Your task to perform on an android device: Search for the best rated mattress topper on Target. Image 0: 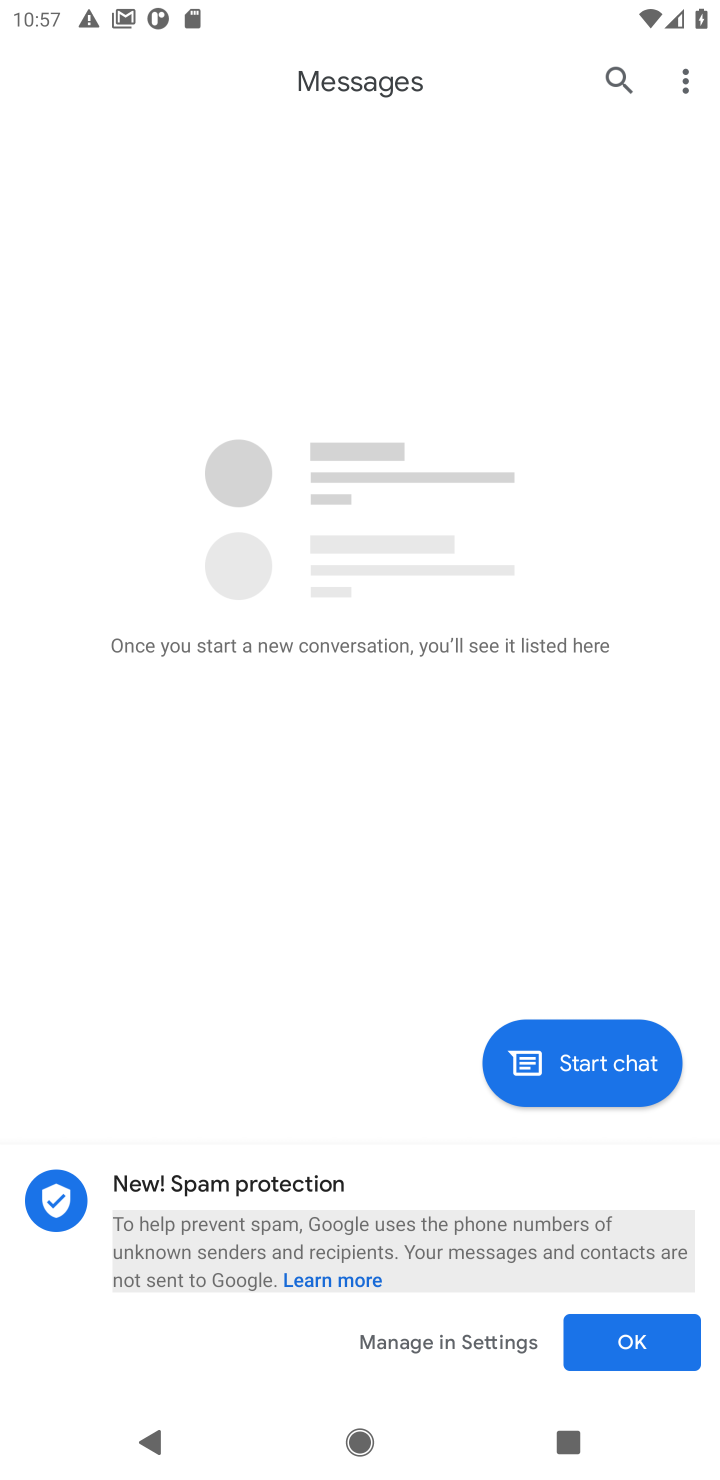
Step 0: press home button
Your task to perform on an android device: Search for the best rated mattress topper on Target. Image 1: 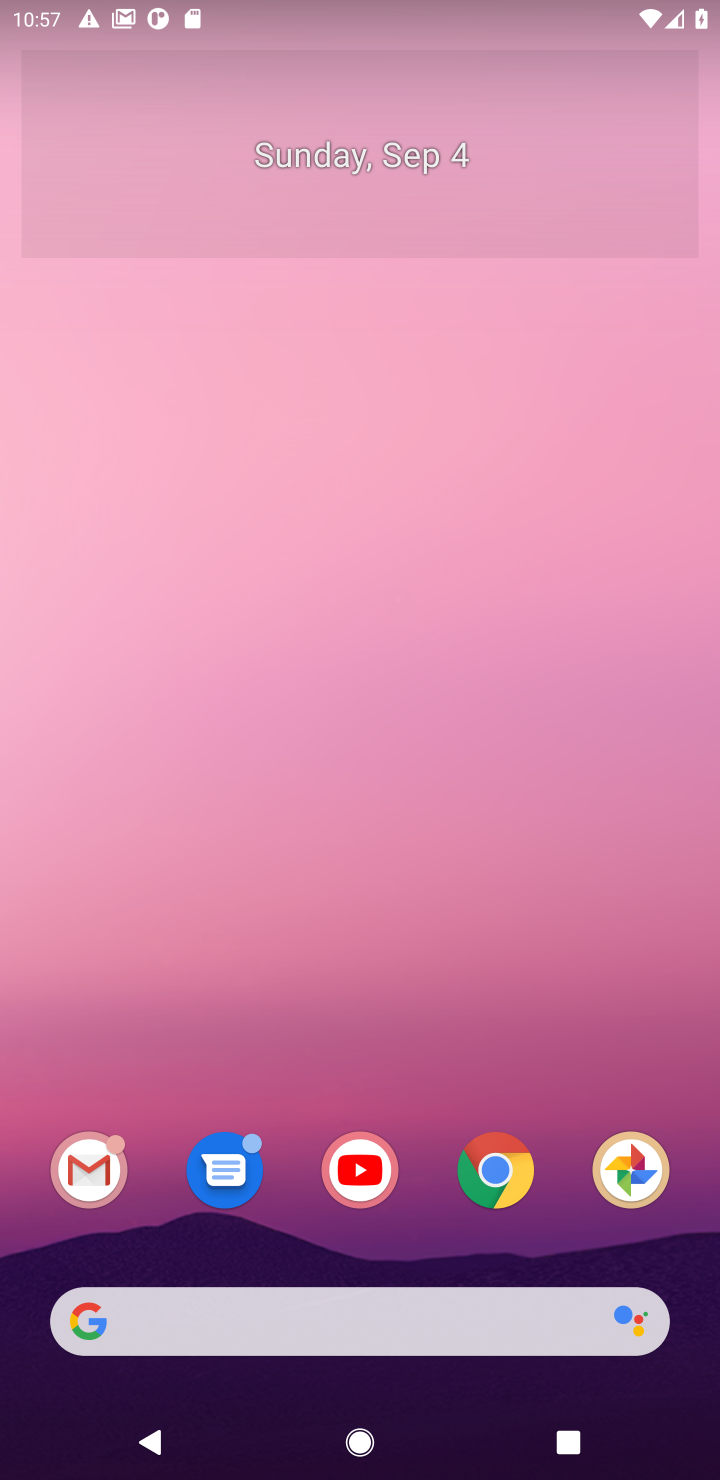
Step 1: drag from (298, 1243) to (247, 219)
Your task to perform on an android device: Search for the best rated mattress topper on Target. Image 2: 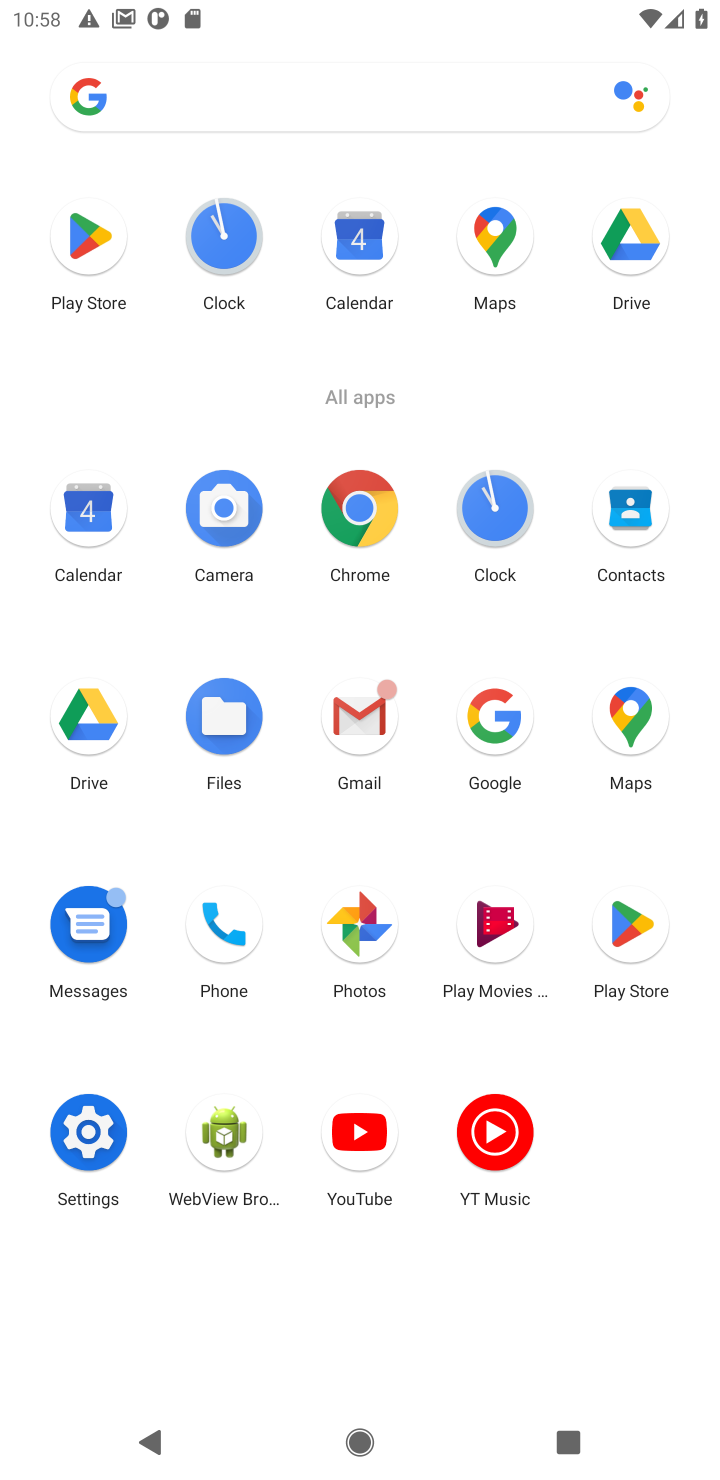
Step 2: click (508, 706)
Your task to perform on an android device: Search for the best rated mattress topper on Target. Image 3: 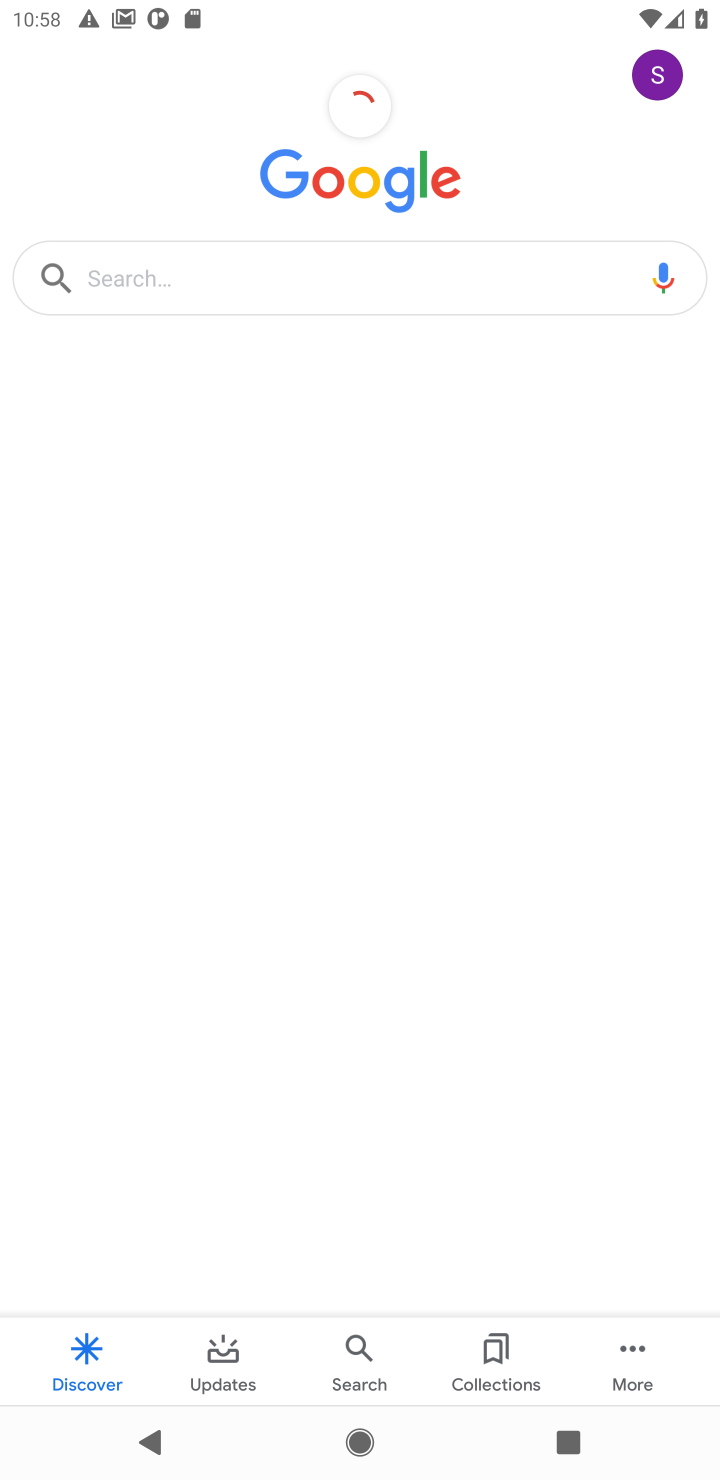
Step 3: click (245, 250)
Your task to perform on an android device: Search for the best rated mattress topper on Target. Image 4: 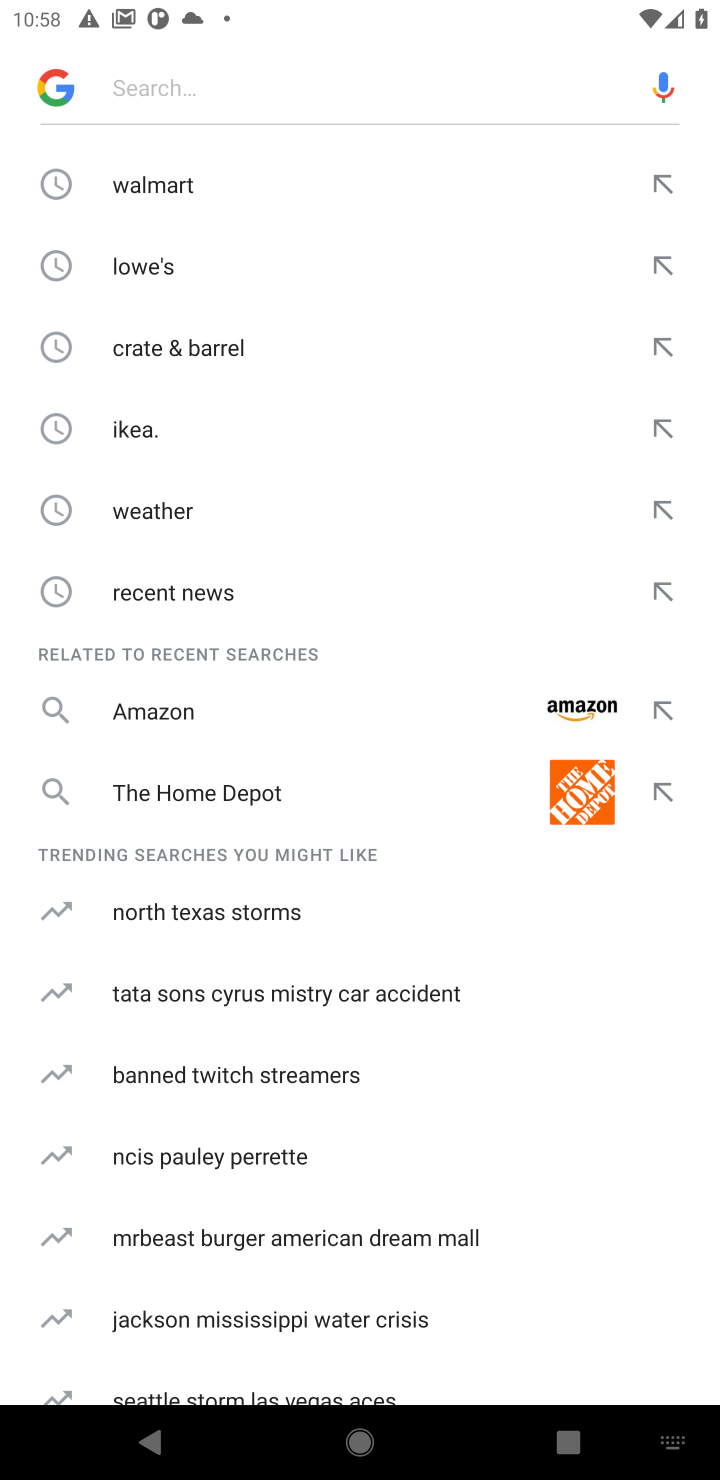
Step 4: type "Target"
Your task to perform on an android device: Search for the best rated mattress topper on Target. Image 5: 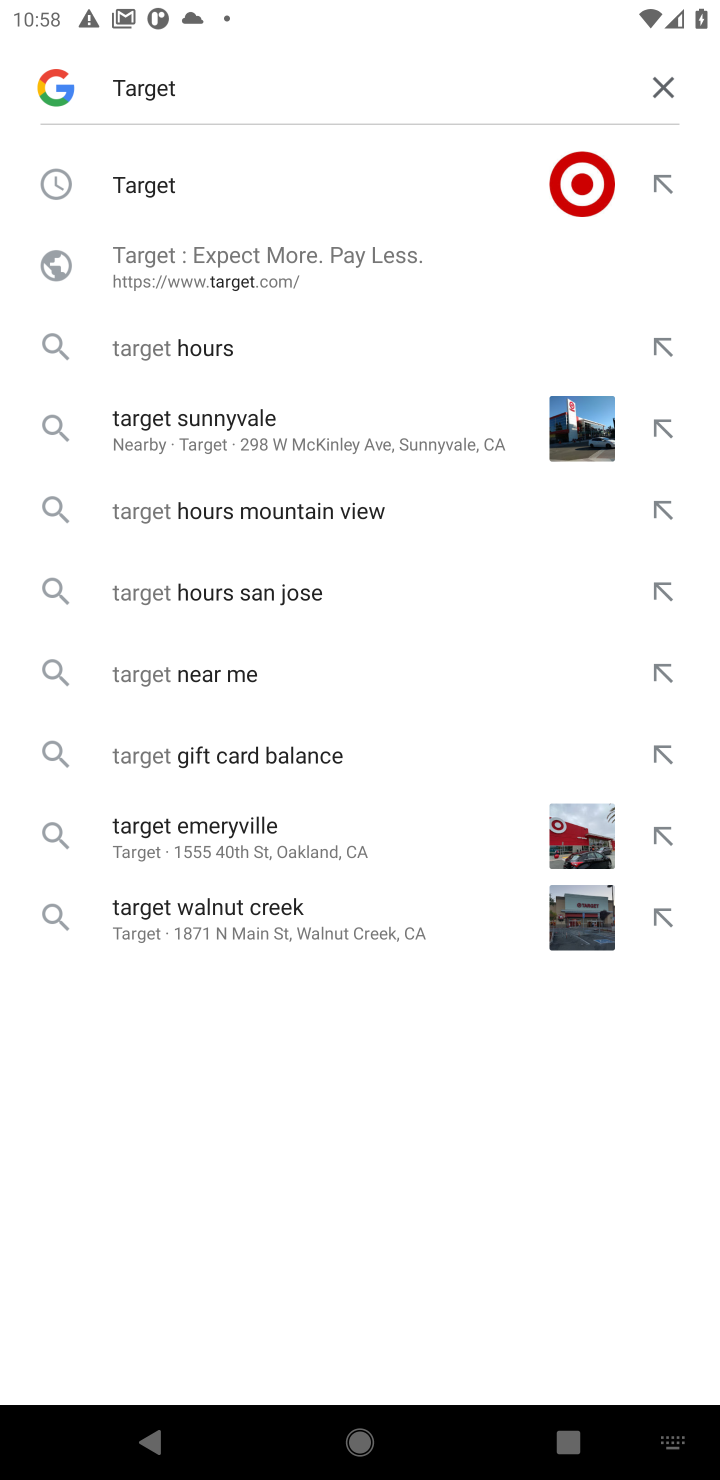
Step 5: type ""
Your task to perform on an android device: Search for the best rated mattress topper on Target. Image 6: 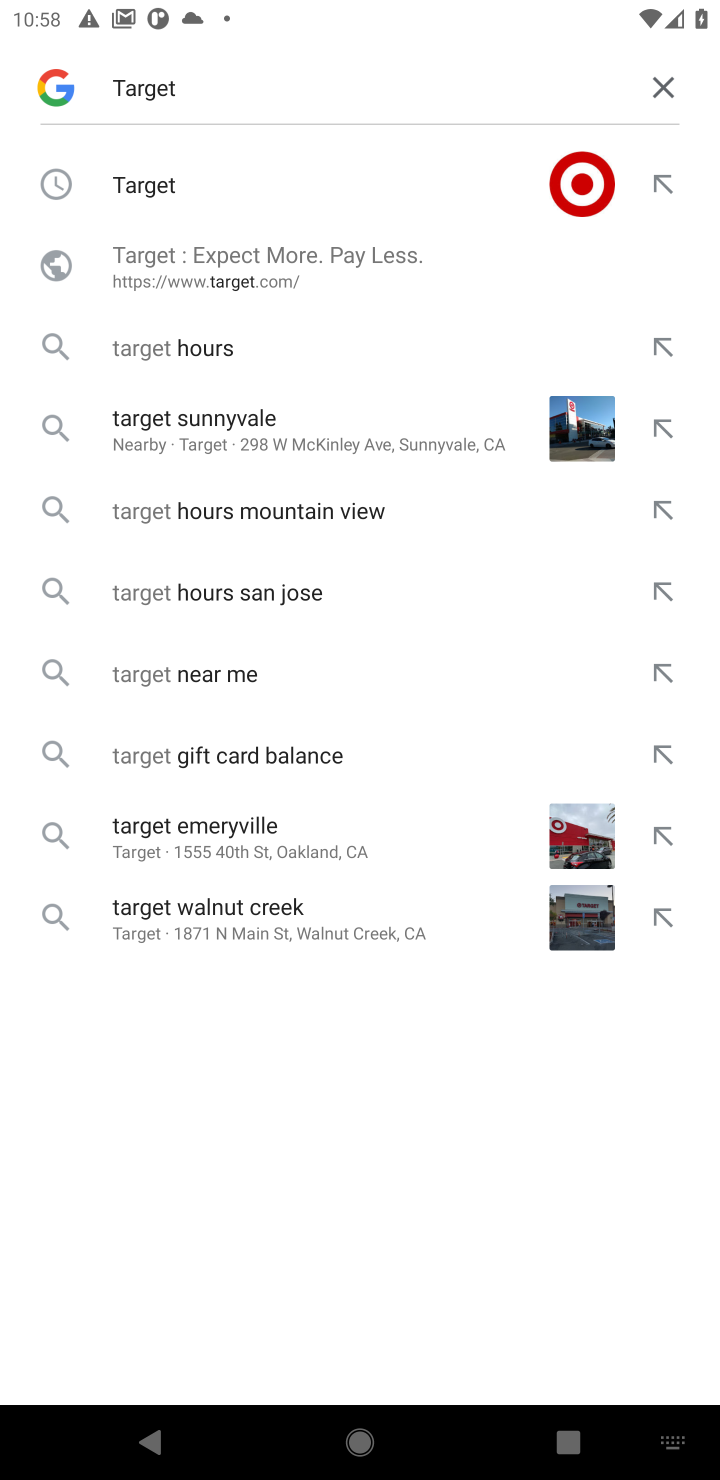
Step 6: click (119, 173)
Your task to perform on an android device: Search for the best rated mattress topper on Target. Image 7: 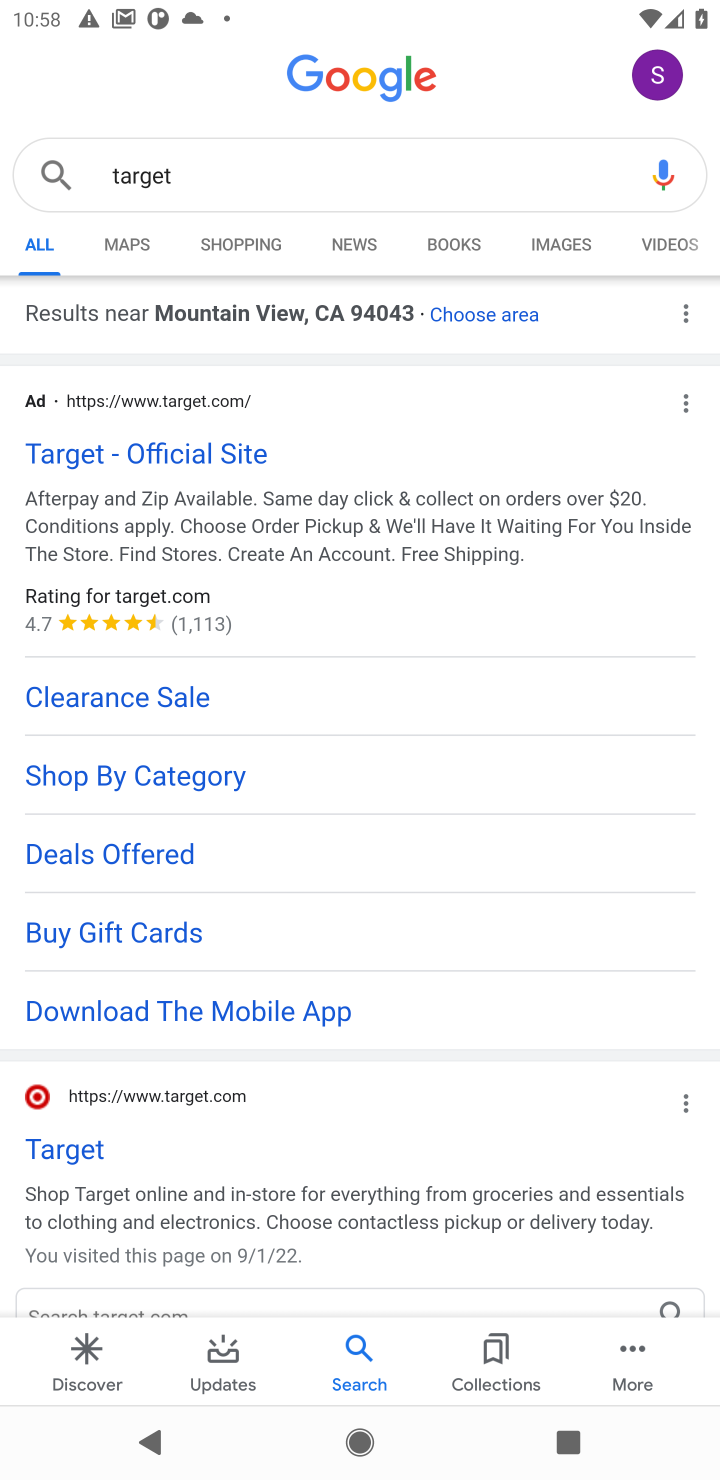
Step 7: click (188, 435)
Your task to perform on an android device: Search for the best rated mattress topper on Target. Image 8: 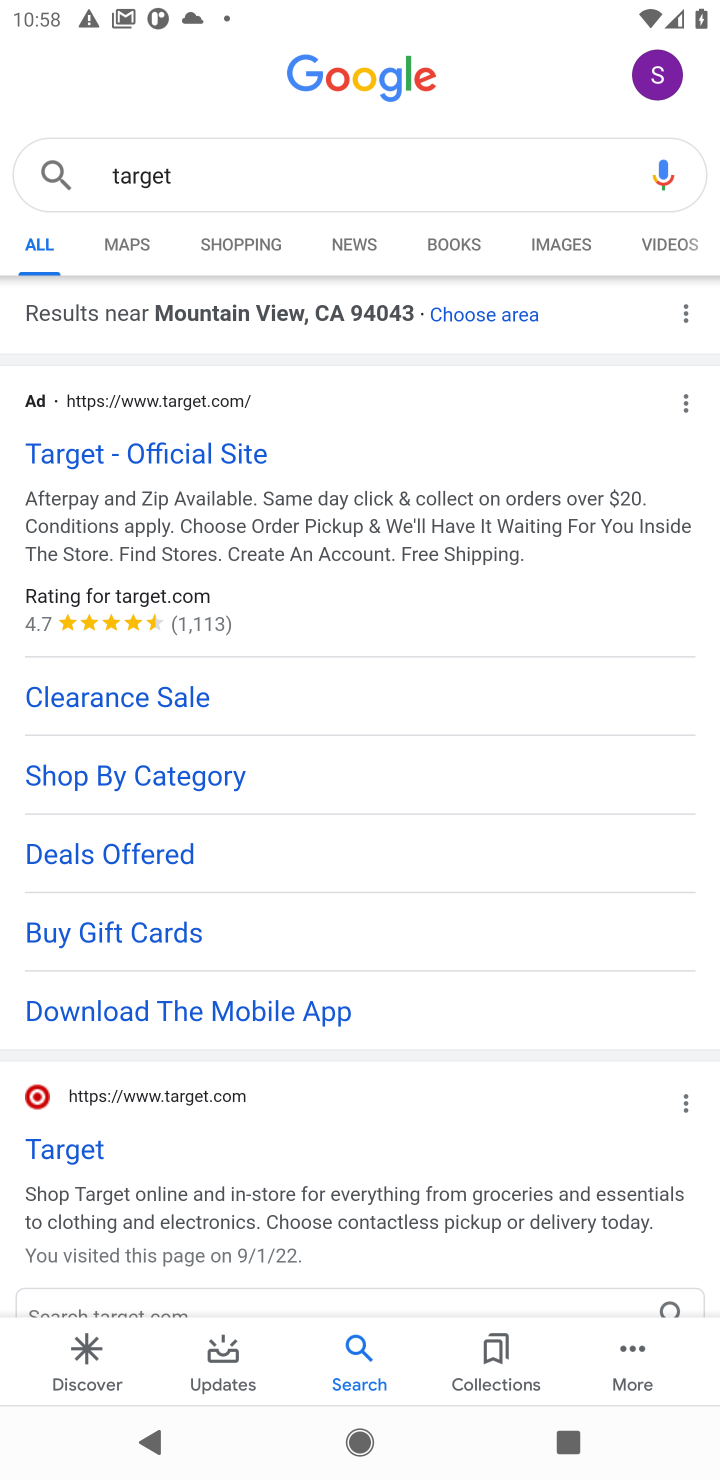
Step 8: click (188, 438)
Your task to perform on an android device: Search for the best rated mattress topper on Target. Image 9: 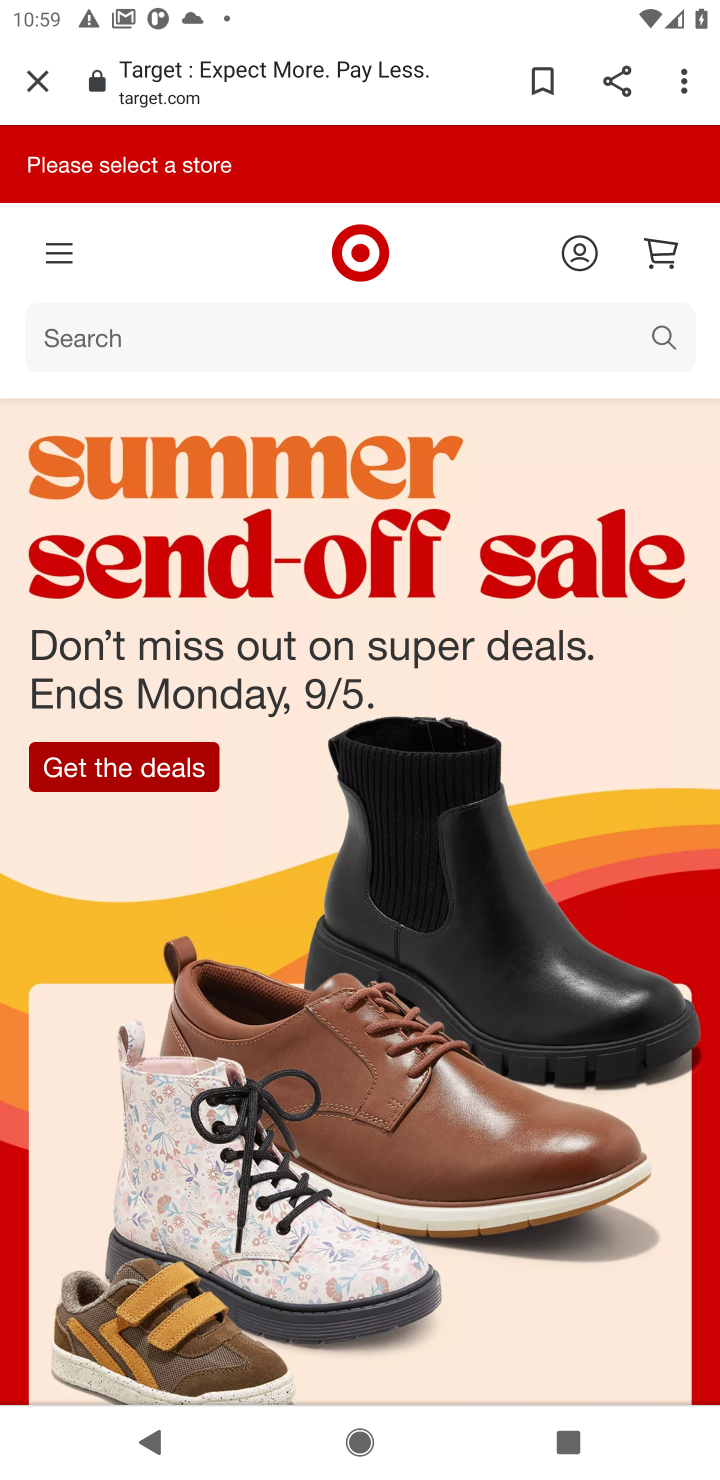
Step 9: click (352, 348)
Your task to perform on an android device: Search for the best rated mattress topper on Target. Image 10: 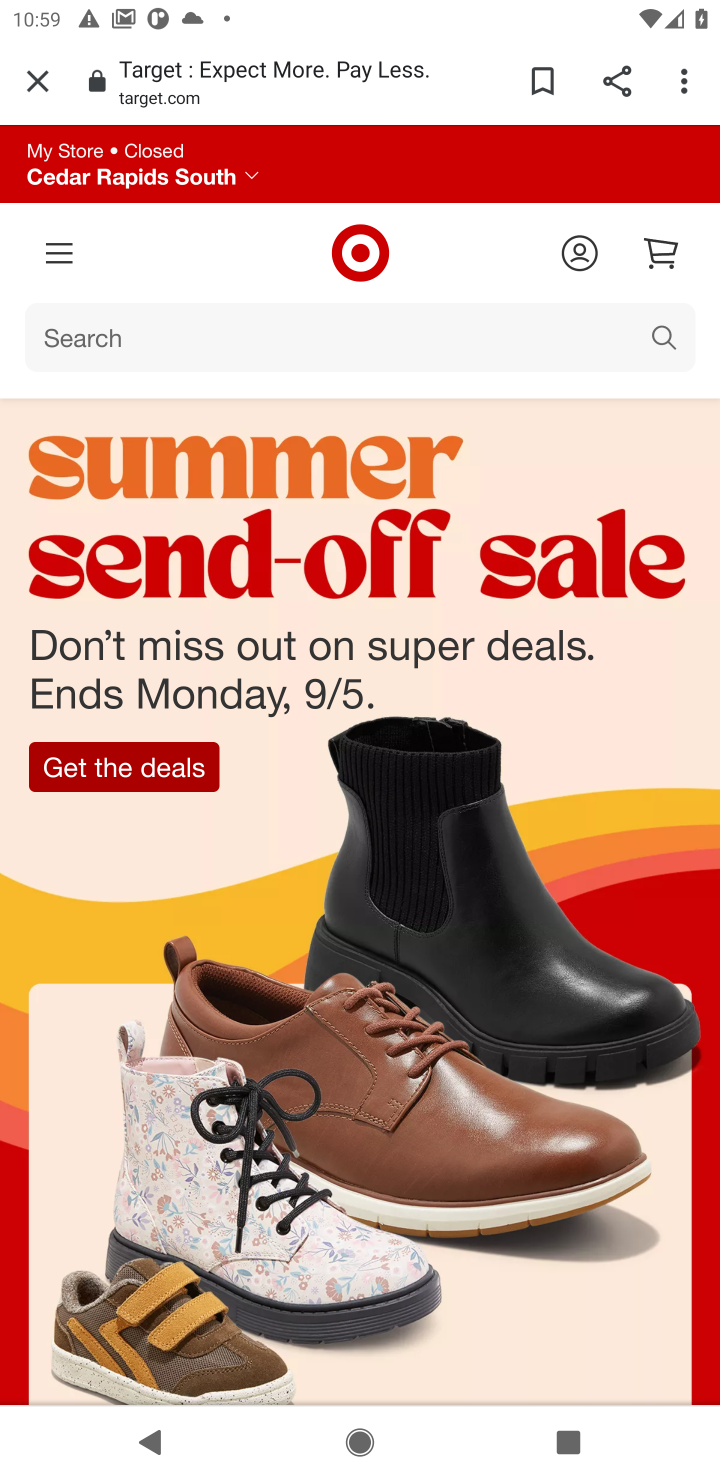
Step 10: click (89, 355)
Your task to perform on an android device: Search for the best rated mattress topper on Target. Image 11: 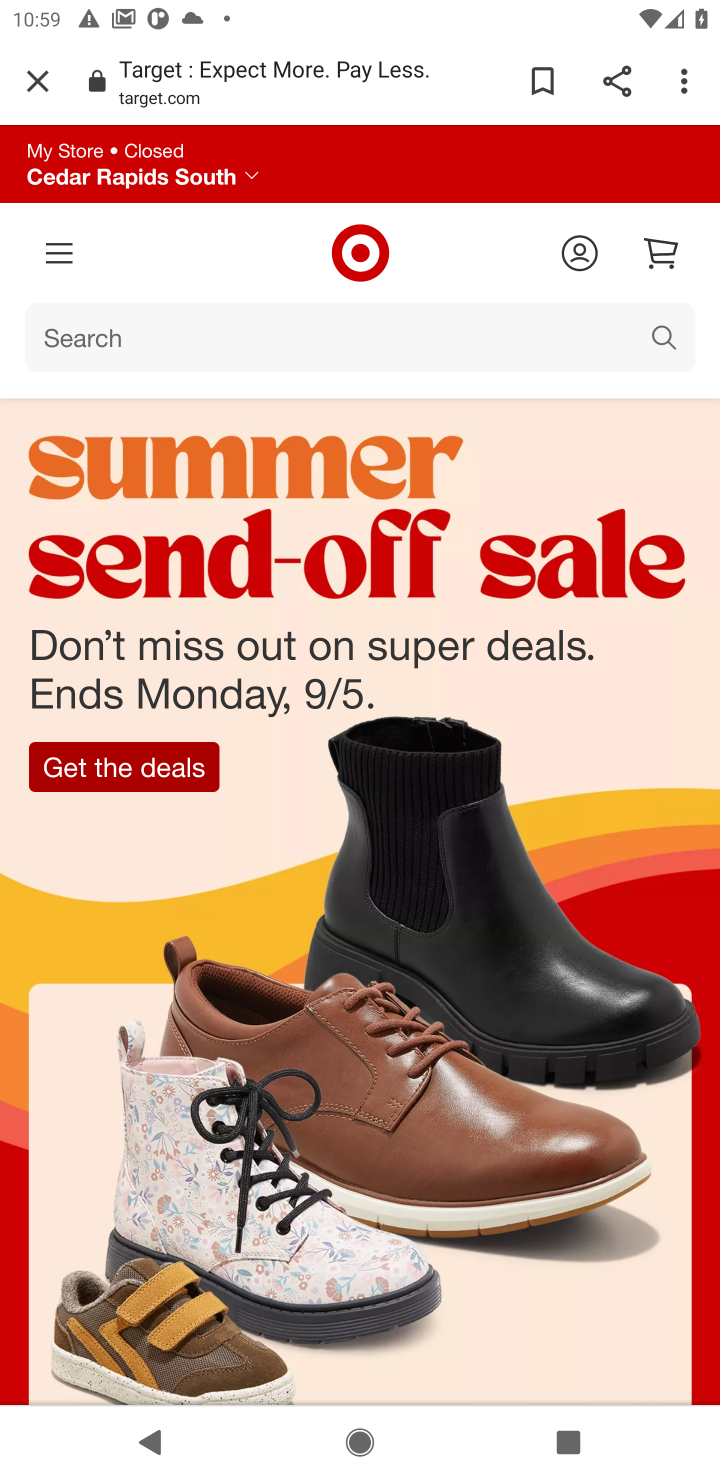
Step 11: click (169, 329)
Your task to perform on an android device: Search for the best rated mattress topper on Target. Image 12: 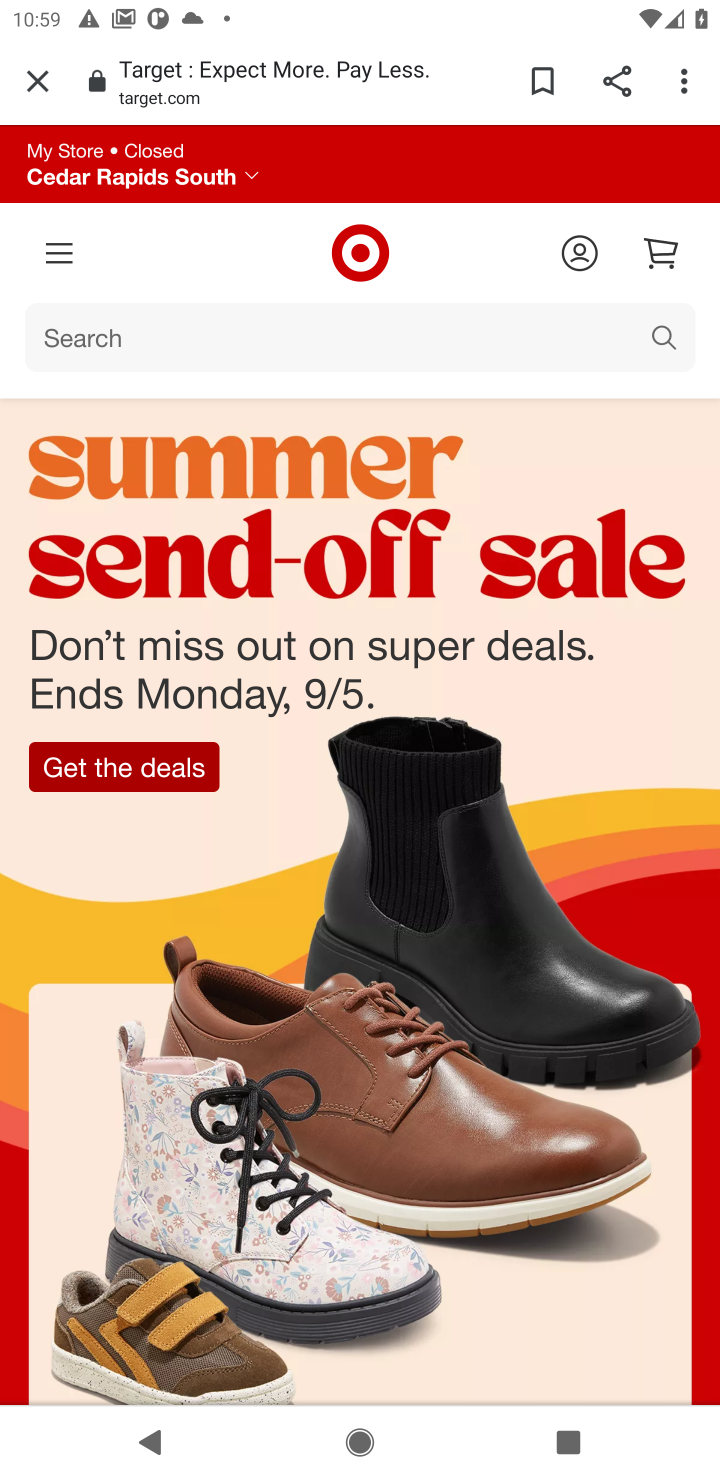
Step 12: click (444, 339)
Your task to perform on an android device: Search for the best rated mattress topper on Target. Image 13: 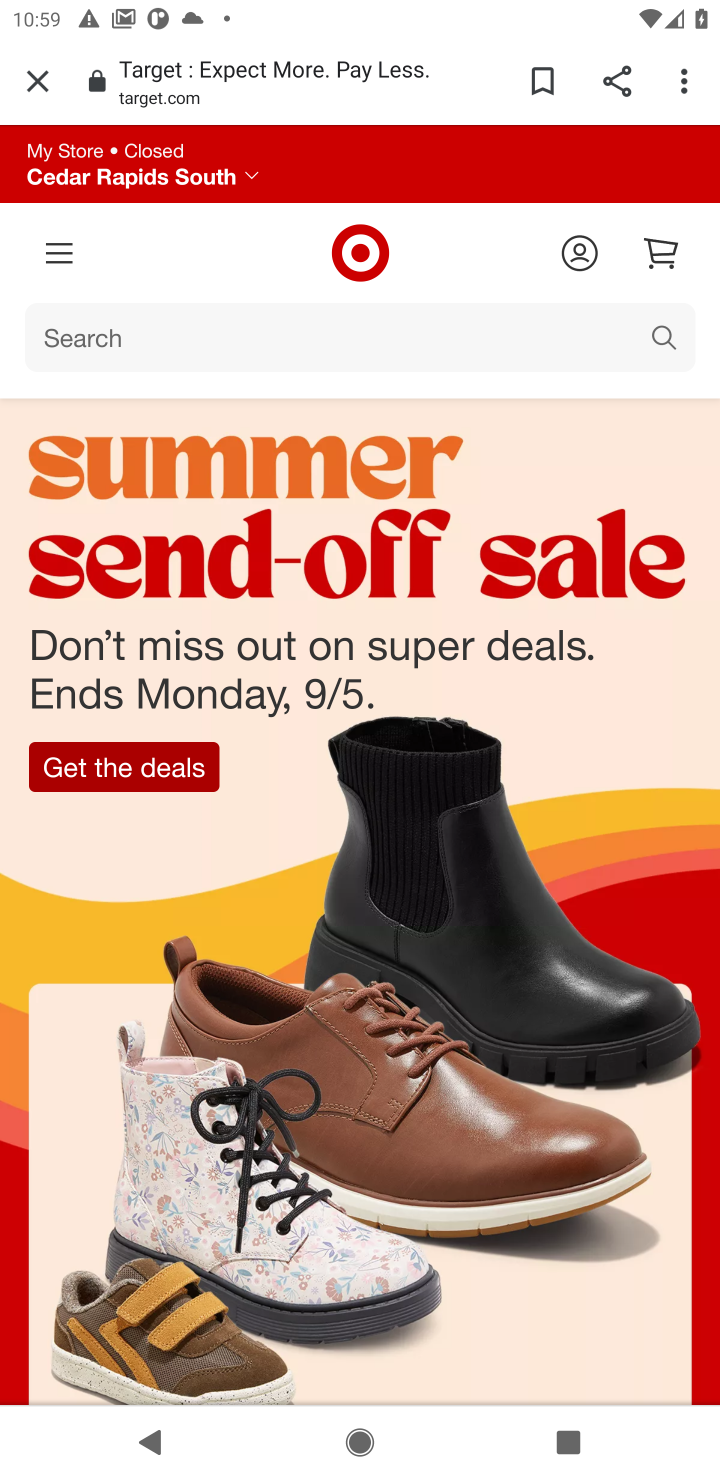
Step 13: click (446, 341)
Your task to perform on an android device: Search for the best rated mattress topper on Target. Image 14: 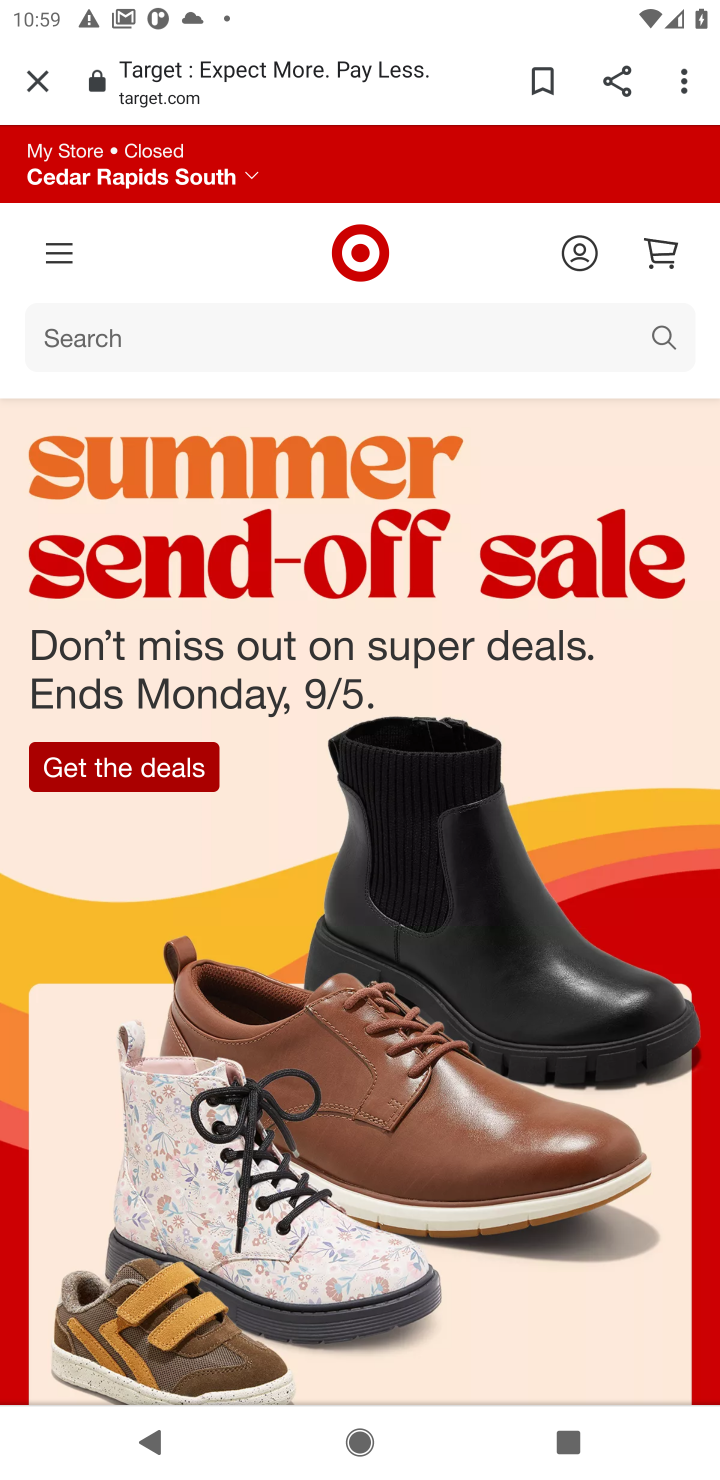
Step 14: click (673, 330)
Your task to perform on an android device: Search for the best rated mattress topper on Target. Image 15: 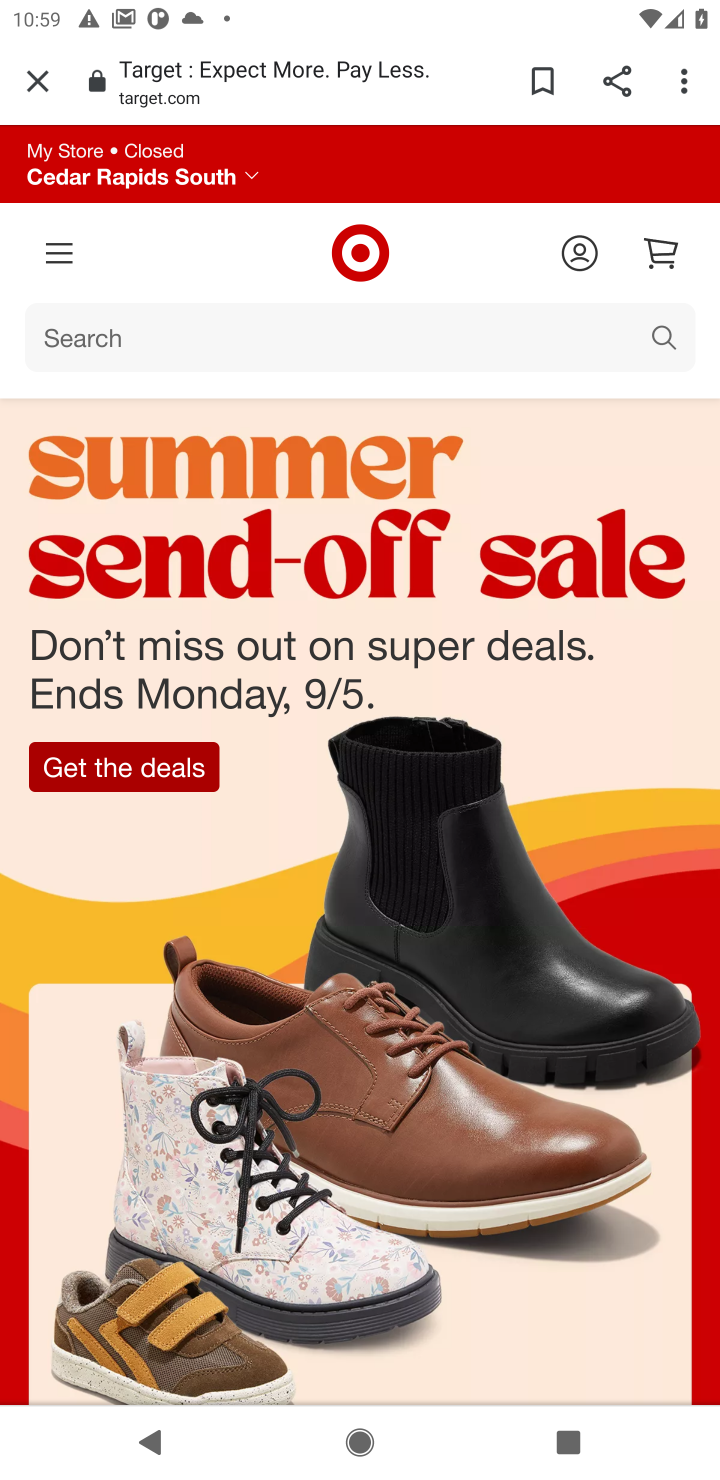
Step 15: drag from (619, 342) to (198, 1031)
Your task to perform on an android device: Search for the best rated mattress topper on Target. Image 16: 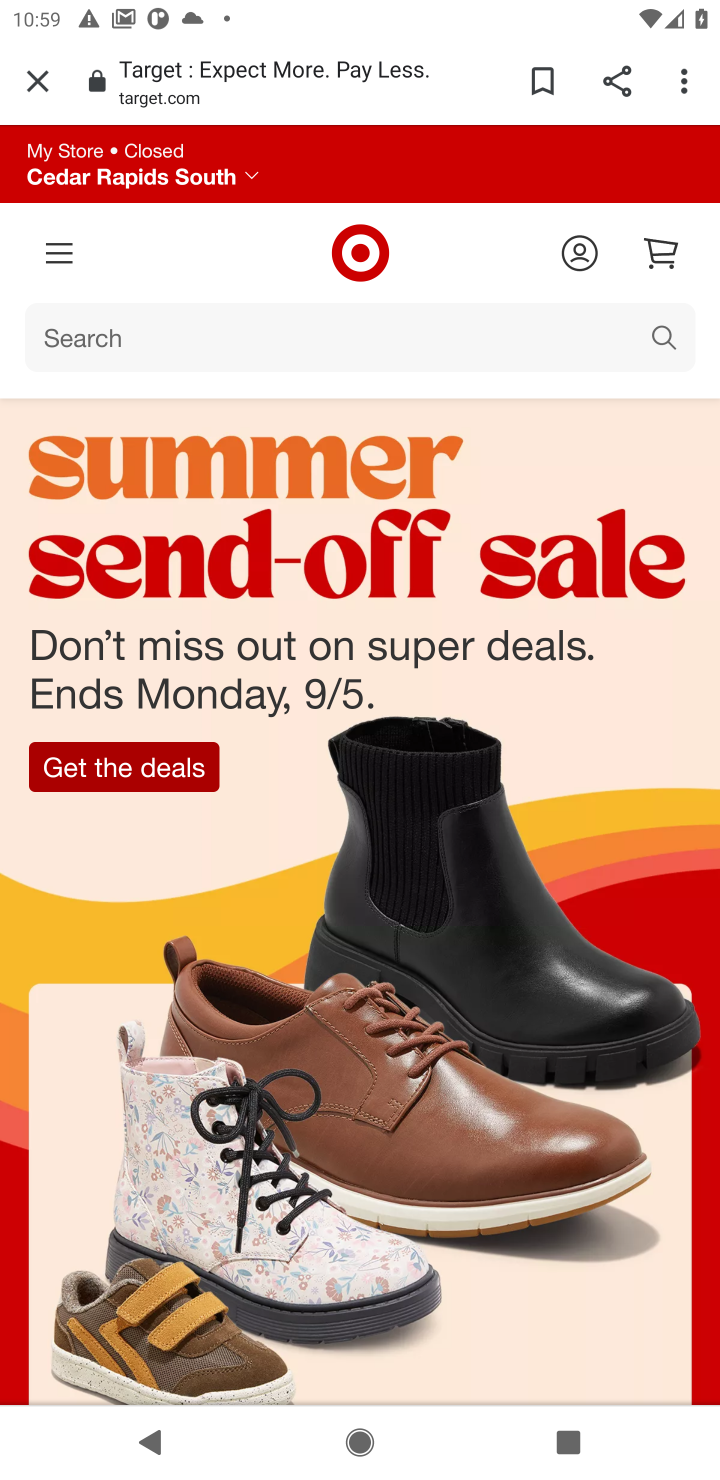
Step 16: click (346, 336)
Your task to perform on an android device: Search for the best rated mattress topper on Target. Image 17: 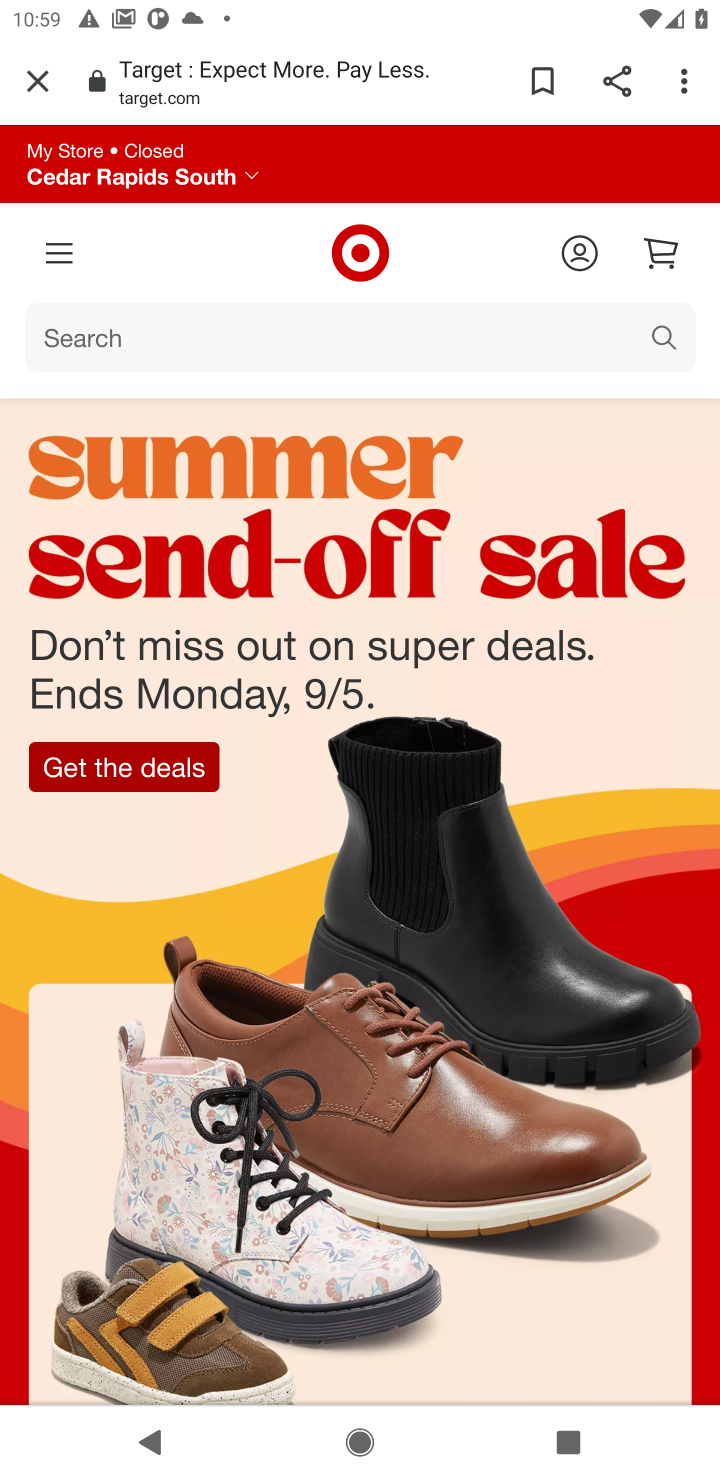
Step 17: click (641, 326)
Your task to perform on an android device: Search for the best rated mattress topper on Target. Image 18: 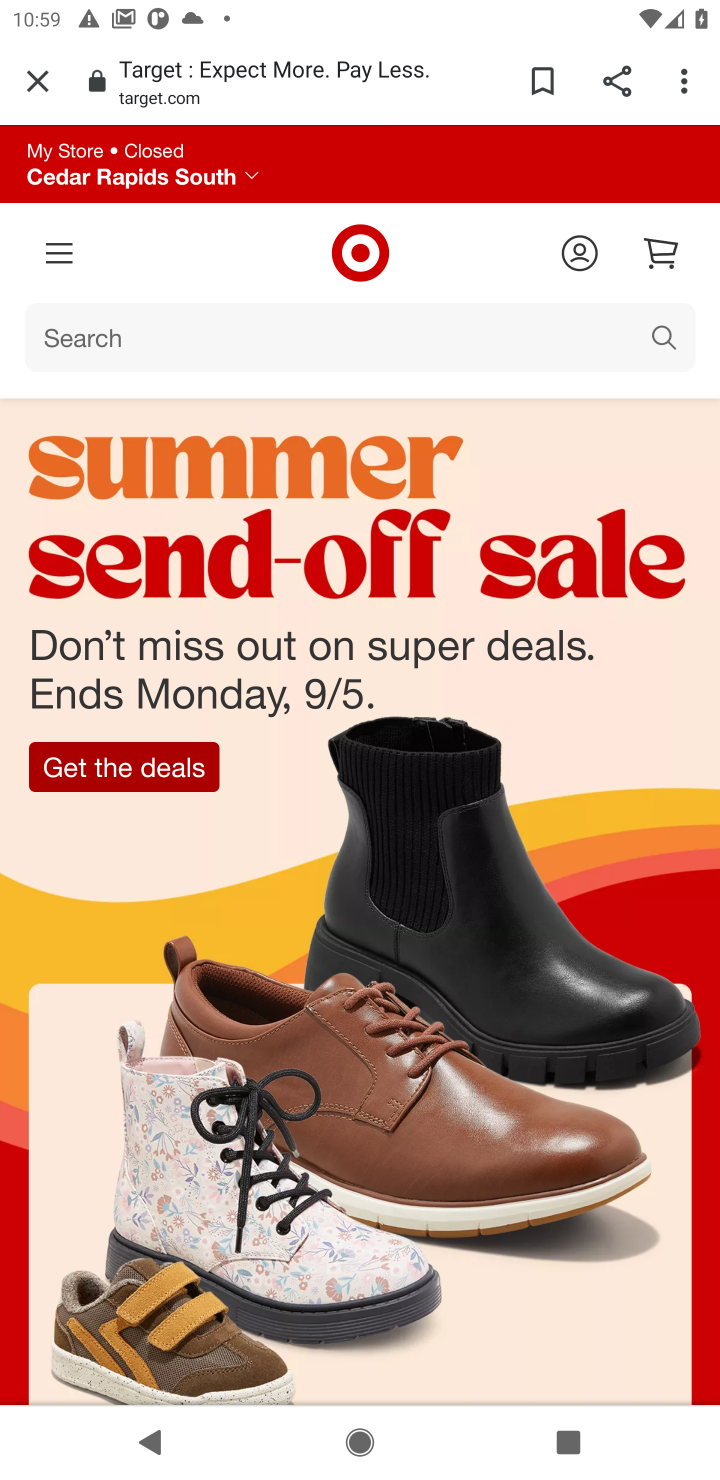
Step 18: drag from (480, 946) to (507, 280)
Your task to perform on an android device: Search for the best rated mattress topper on Target. Image 19: 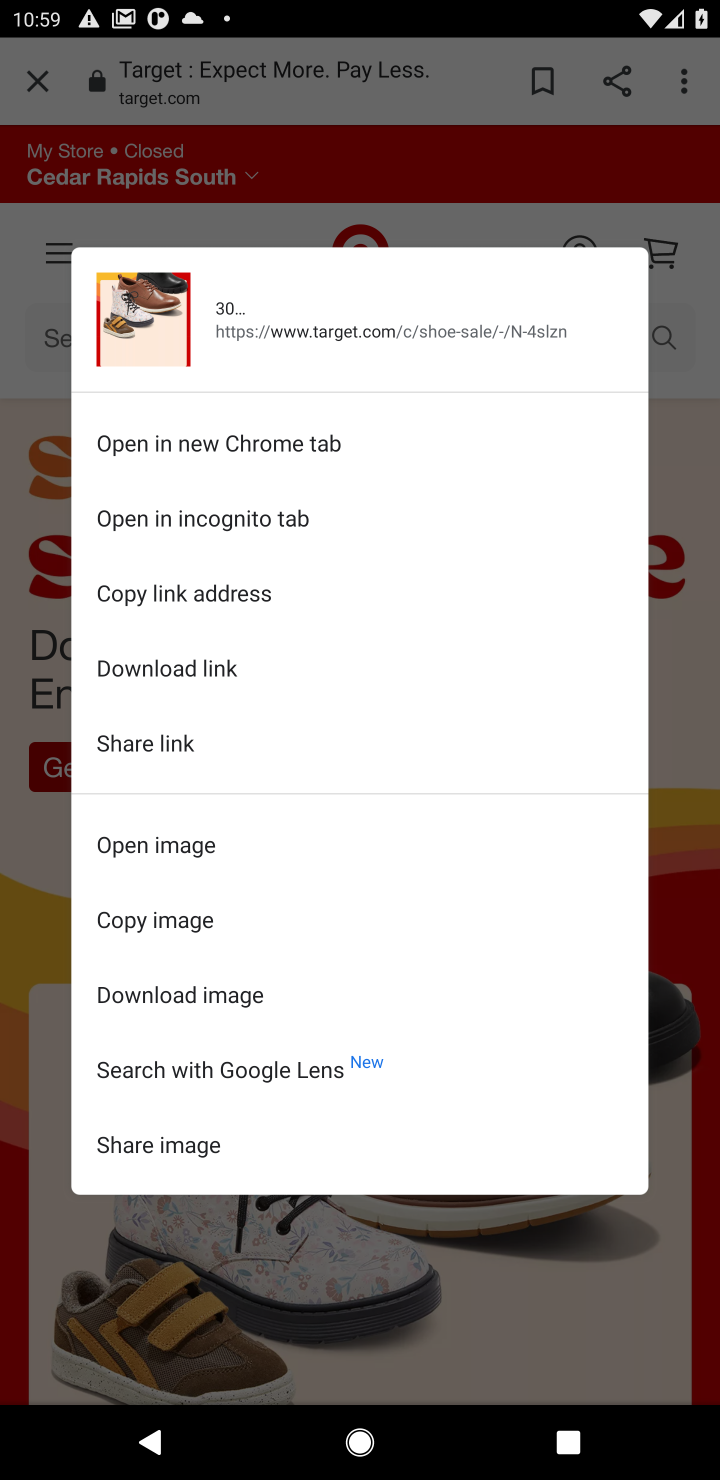
Step 19: click (703, 799)
Your task to perform on an android device: Search for the best rated mattress topper on Target. Image 20: 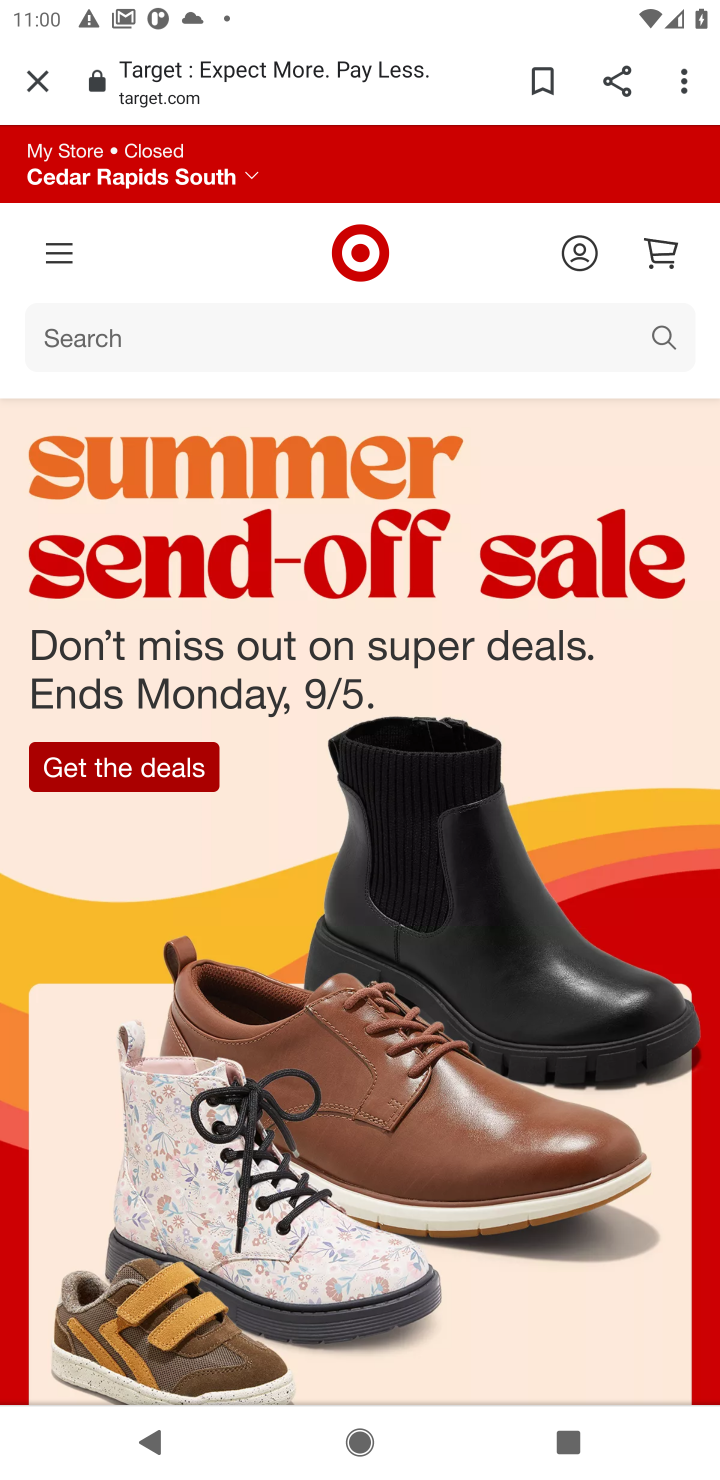
Step 20: click (224, 355)
Your task to perform on an android device: Search for the best rated mattress topper on Target. Image 21: 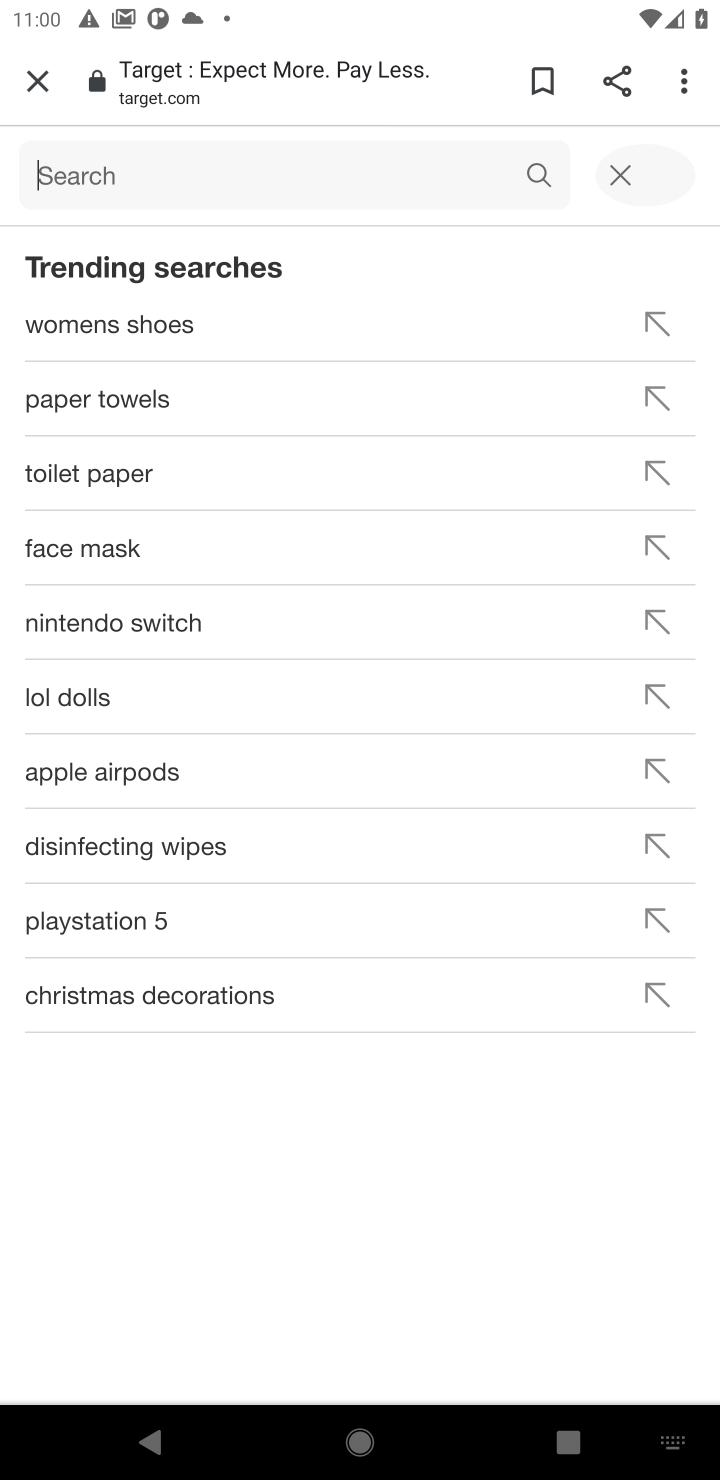
Step 21: click (415, 1476)
Your task to perform on an android device: Search for the best rated mattress topper on Target. Image 22: 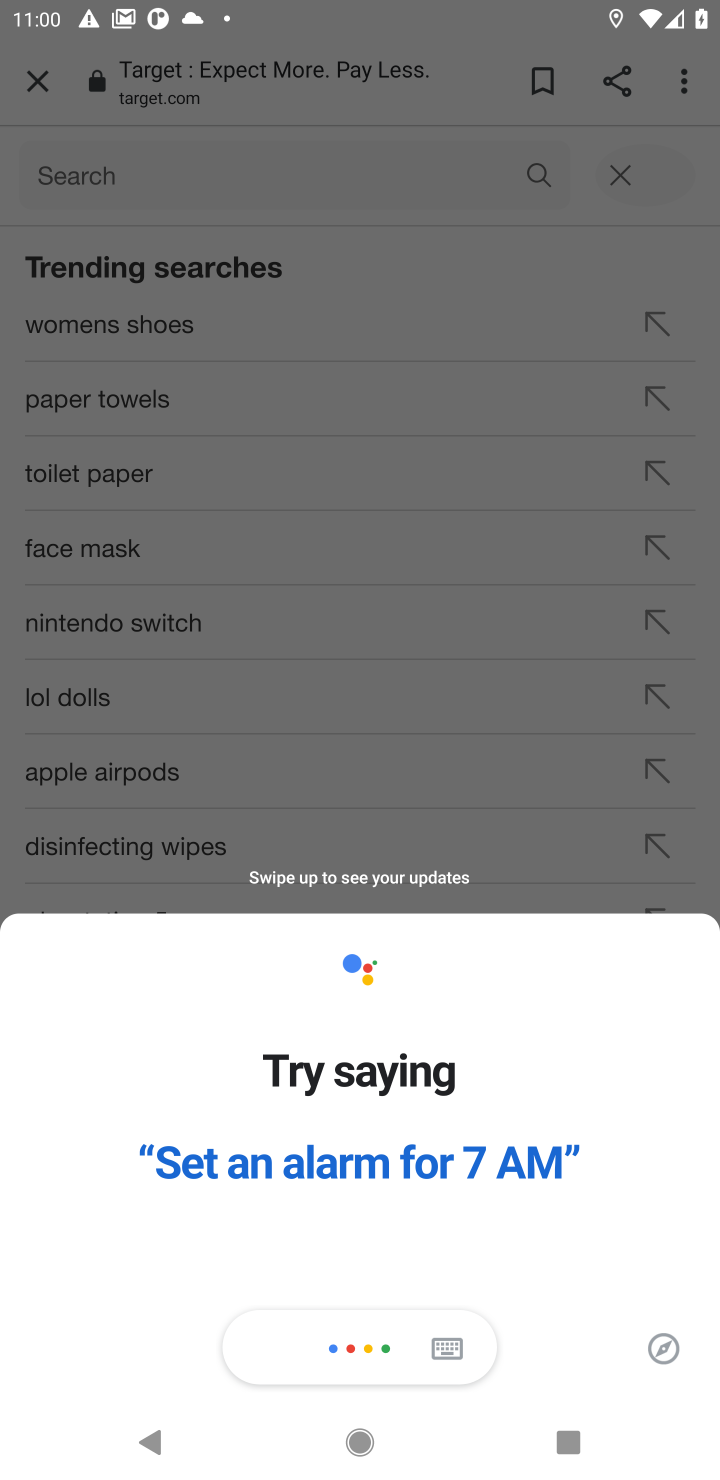
Step 22: click (208, 190)
Your task to perform on an android device: Search for the best rated mattress topper on Target. Image 23: 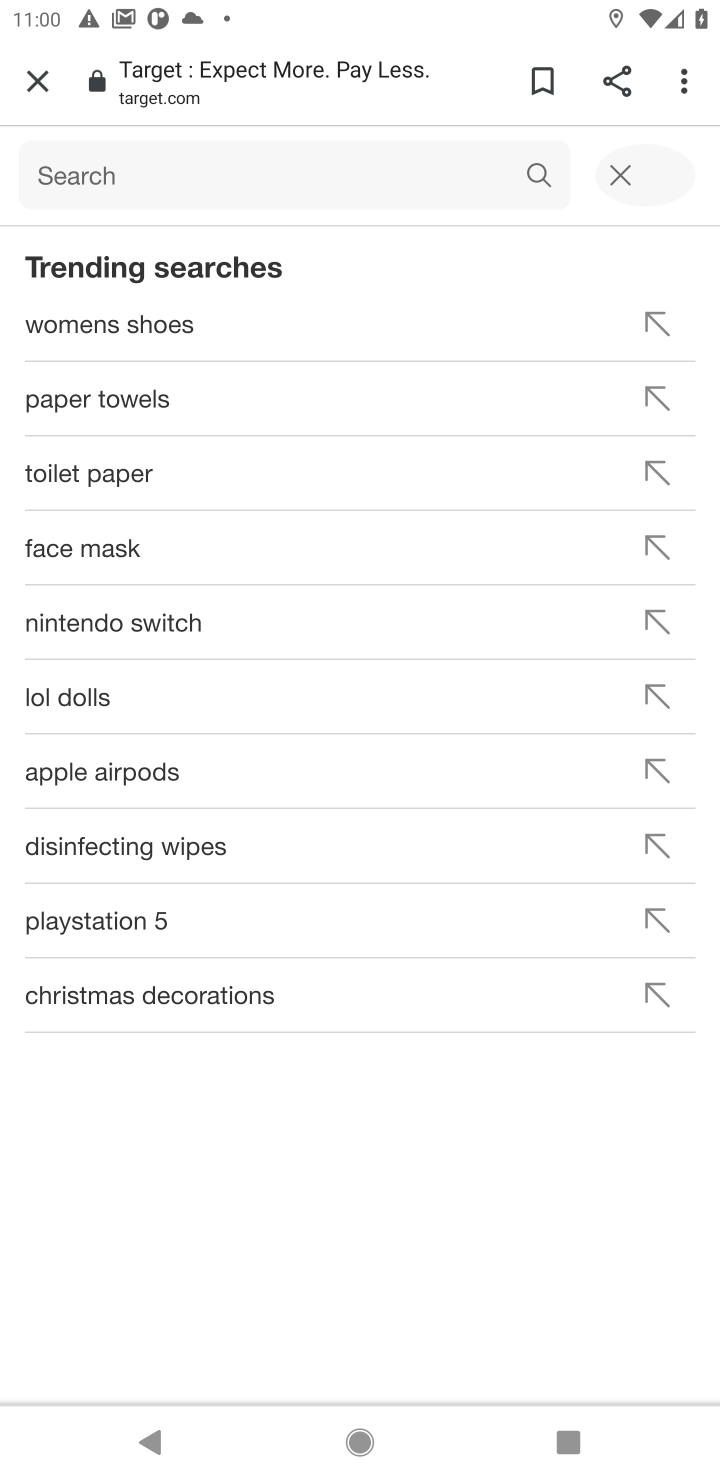
Step 23: click (197, 179)
Your task to perform on an android device: Search for the best rated mattress topper on Target. Image 24: 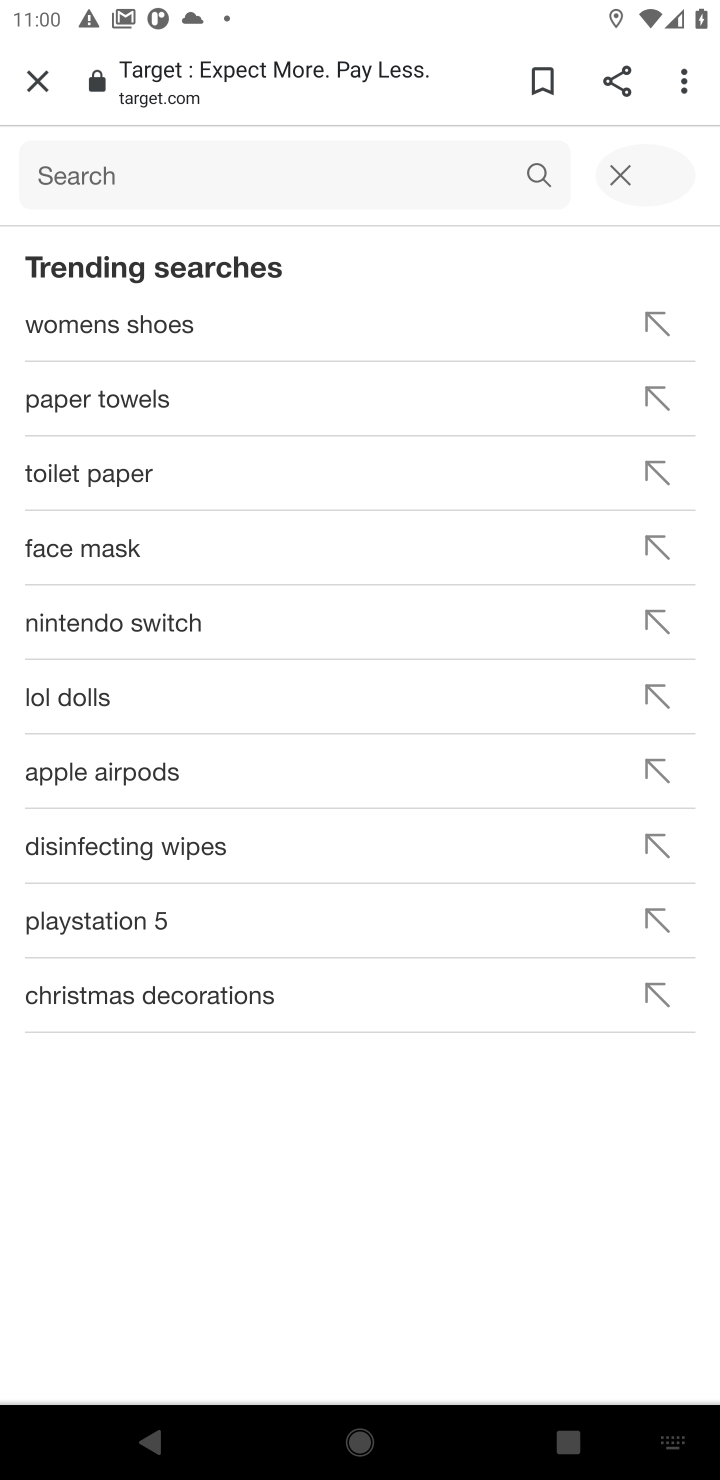
Step 24: type "the best rated mattress topper"
Your task to perform on an android device: Search for the best rated mattress topper on Target. Image 25: 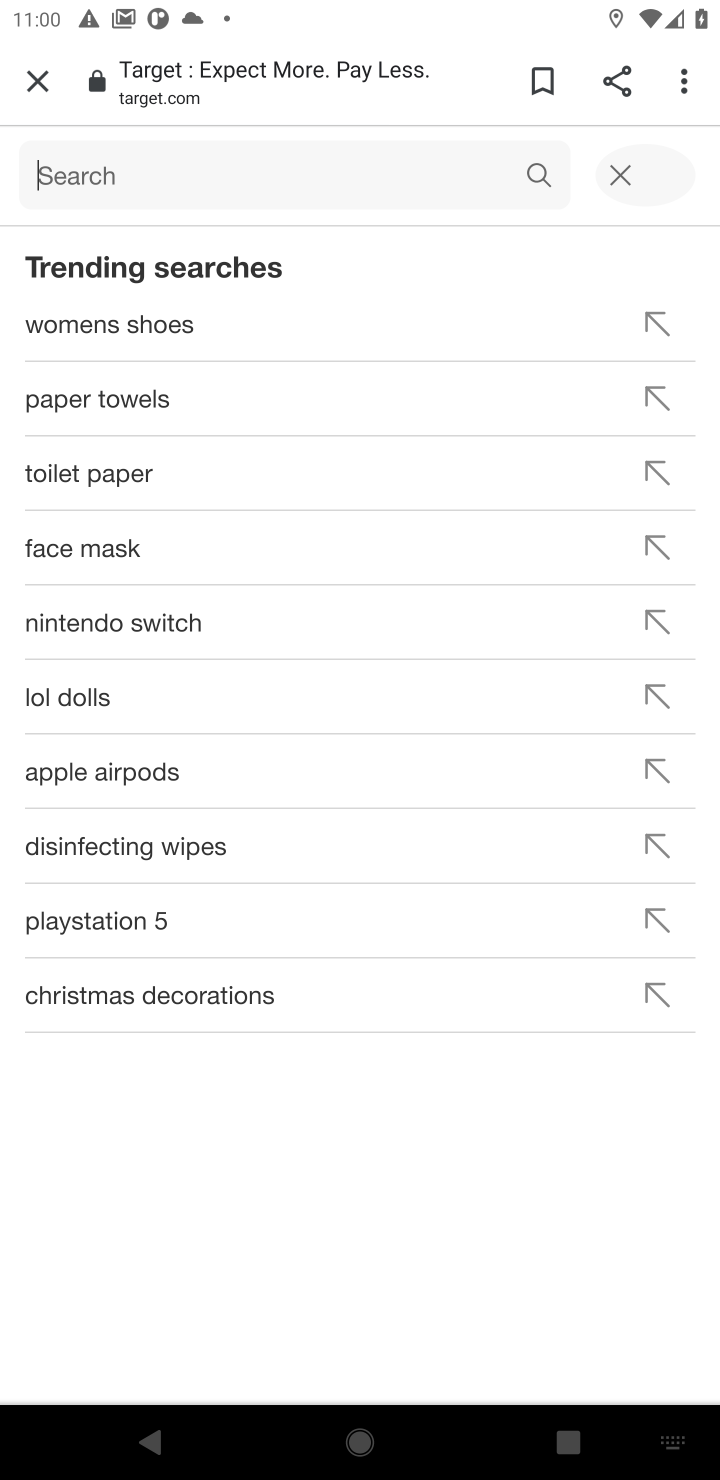
Step 25: type ""
Your task to perform on an android device: Search for the best rated mattress topper on Target. Image 26: 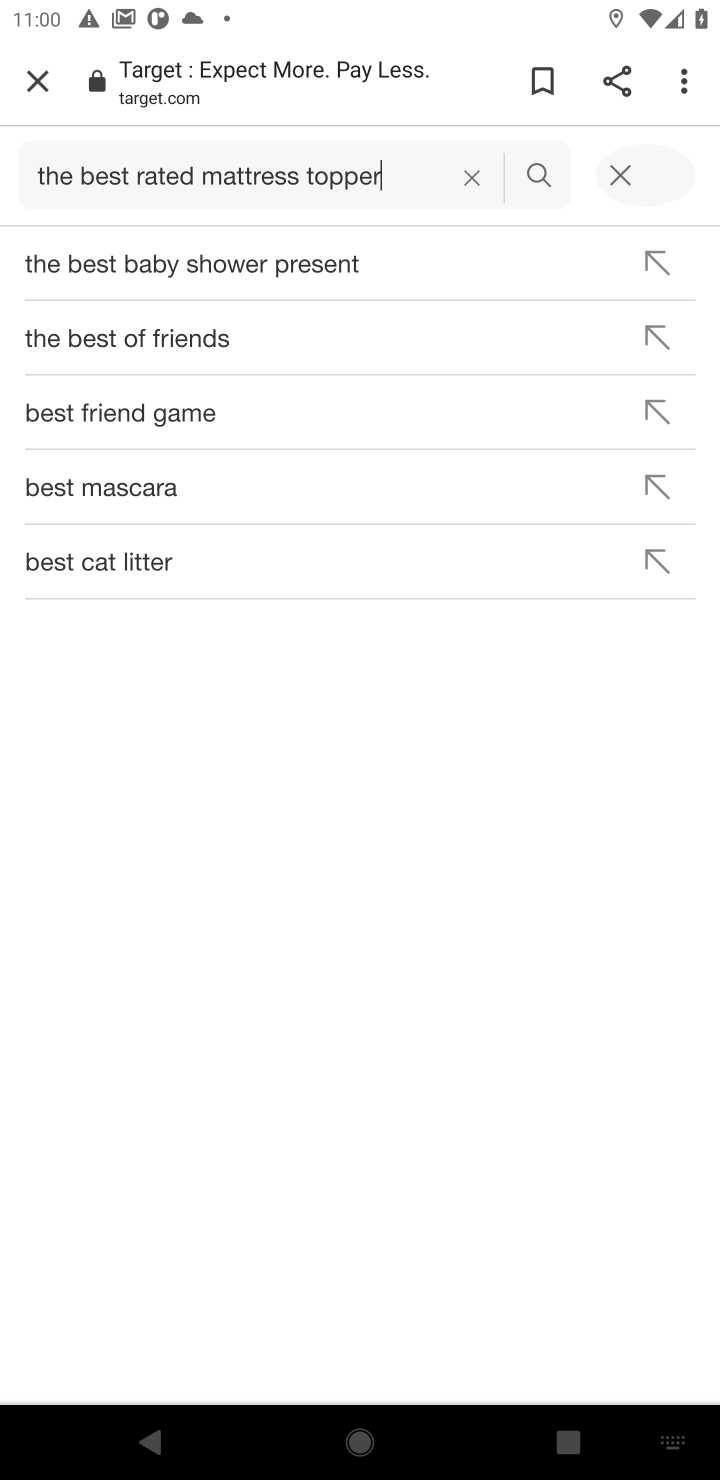
Step 26: click (530, 177)
Your task to perform on an android device: Search for the best rated mattress topper on Target. Image 27: 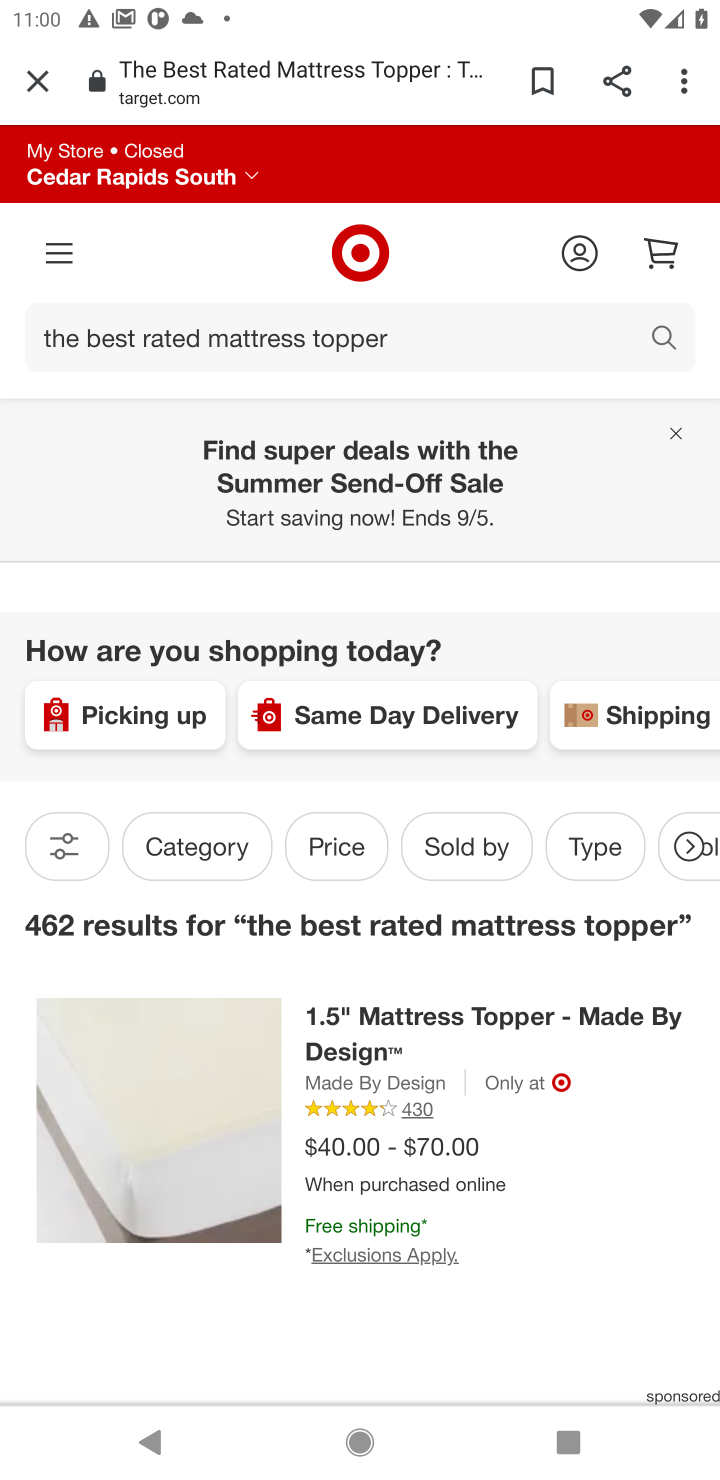
Step 27: click (682, 439)
Your task to perform on an android device: Search for the best rated mattress topper on Target. Image 28: 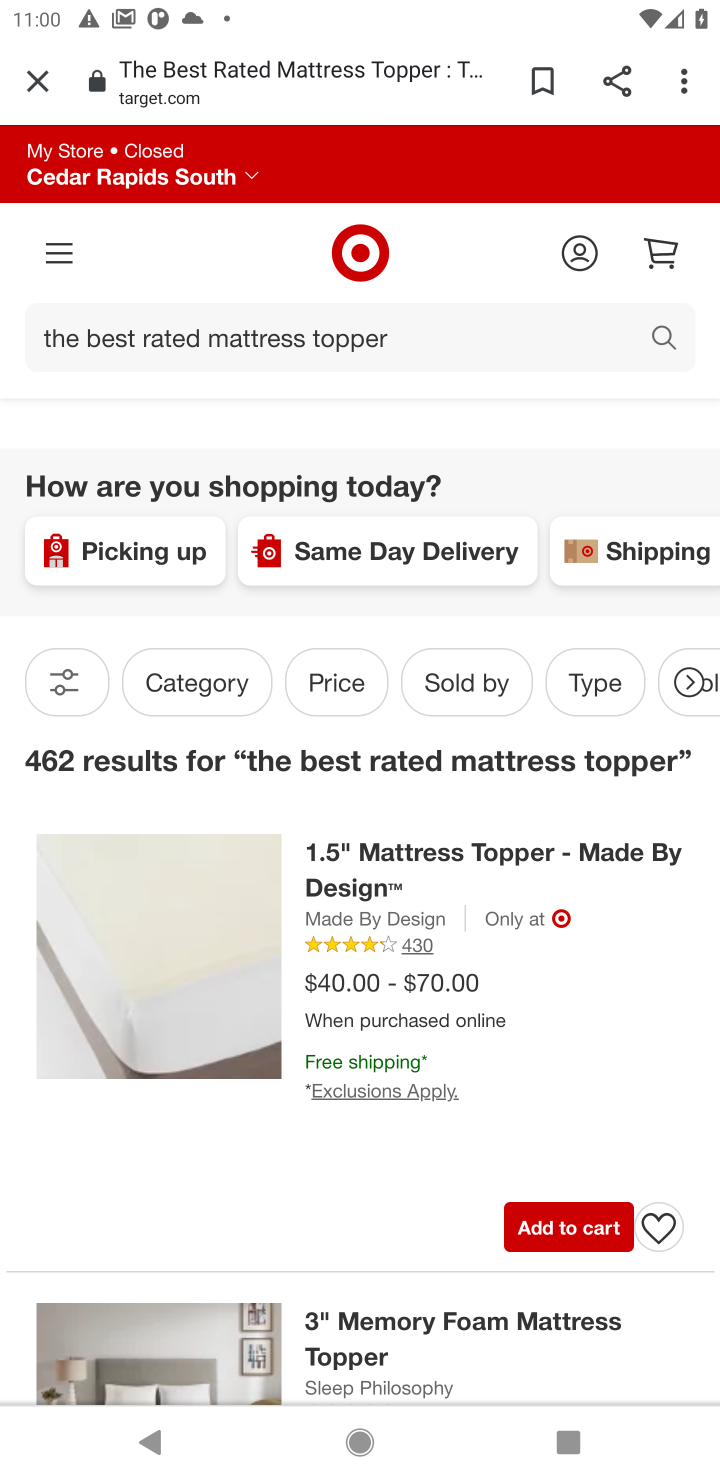
Step 28: task complete